Your task to perform on an android device: turn on data saver in the chrome app Image 0: 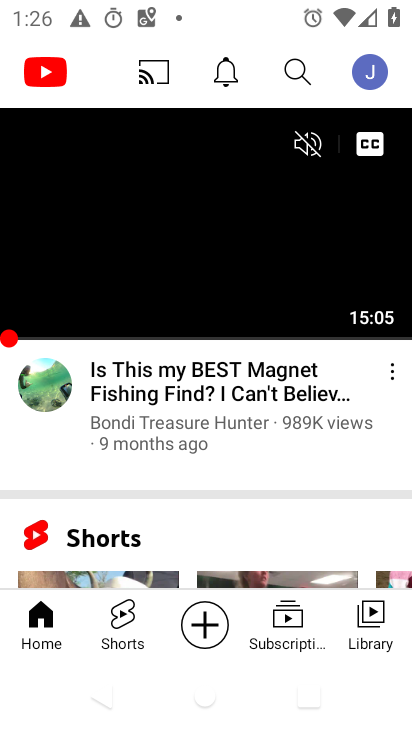
Step 0: press back button
Your task to perform on an android device: turn on data saver in the chrome app Image 1: 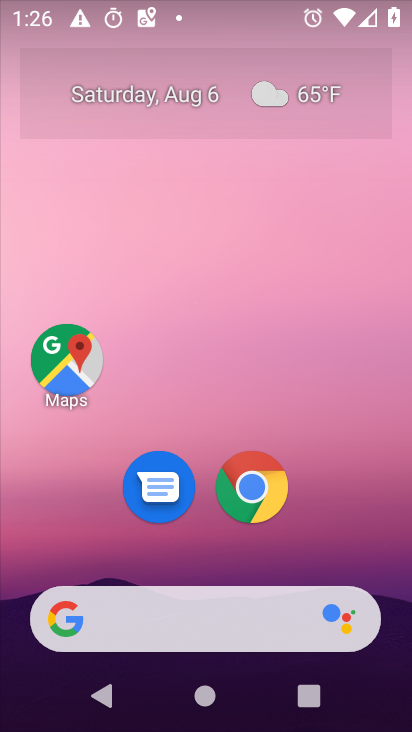
Step 1: drag from (208, 548) to (271, 33)
Your task to perform on an android device: turn on data saver in the chrome app Image 2: 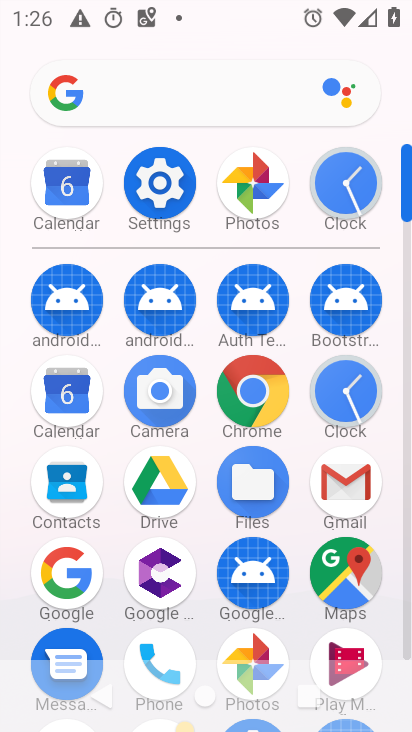
Step 2: click (253, 385)
Your task to perform on an android device: turn on data saver in the chrome app Image 3: 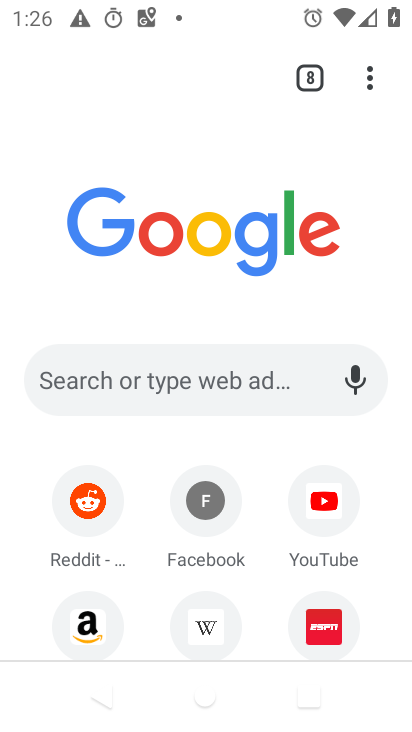
Step 3: drag from (368, 74) to (110, 534)
Your task to perform on an android device: turn on data saver in the chrome app Image 4: 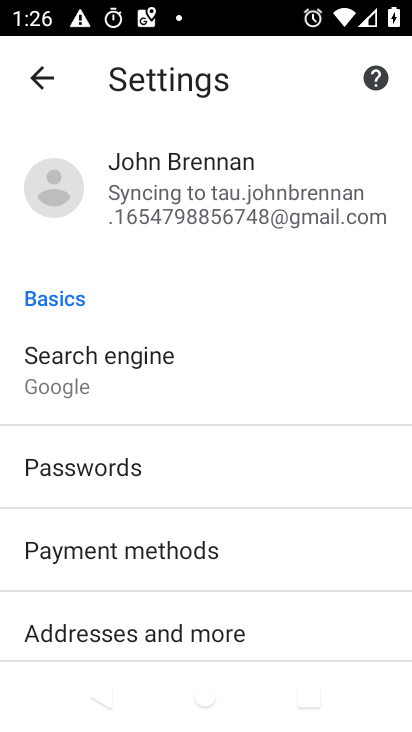
Step 4: drag from (189, 629) to (253, 244)
Your task to perform on an android device: turn on data saver in the chrome app Image 5: 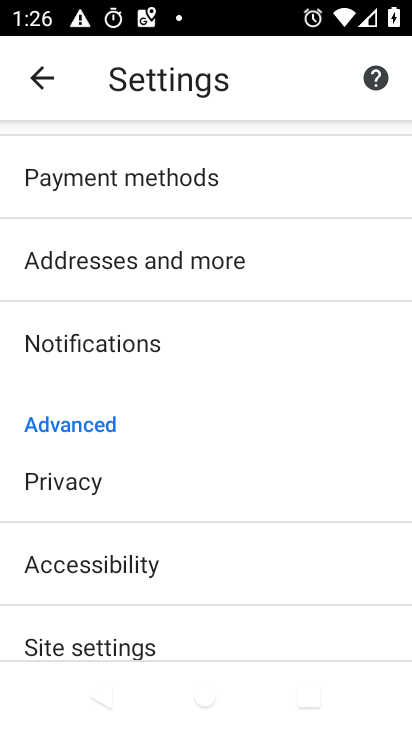
Step 5: drag from (165, 637) to (219, 358)
Your task to perform on an android device: turn on data saver in the chrome app Image 6: 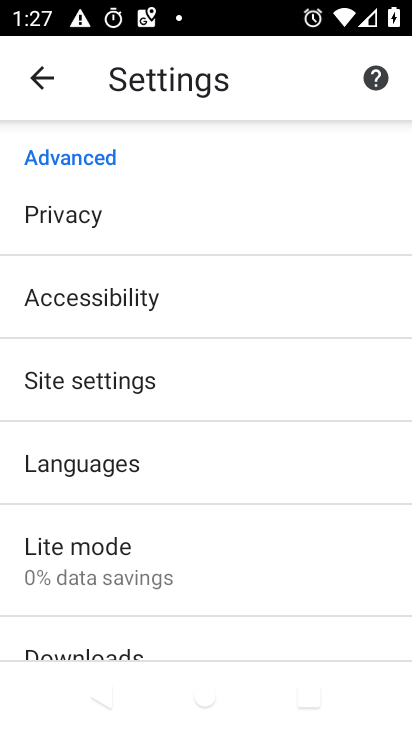
Step 6: click (153, 567)
Your task to perform on an android device: turn on data saver in the chrome app Image 7: 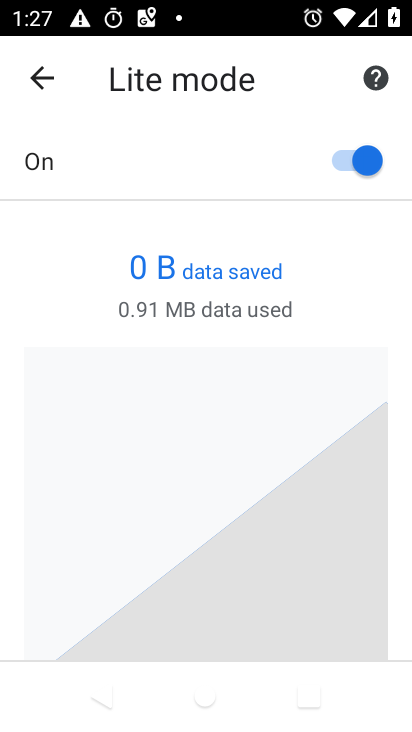
Step 7: task complete